Your task to perform on an android device: change the clock display to analog Image 0: 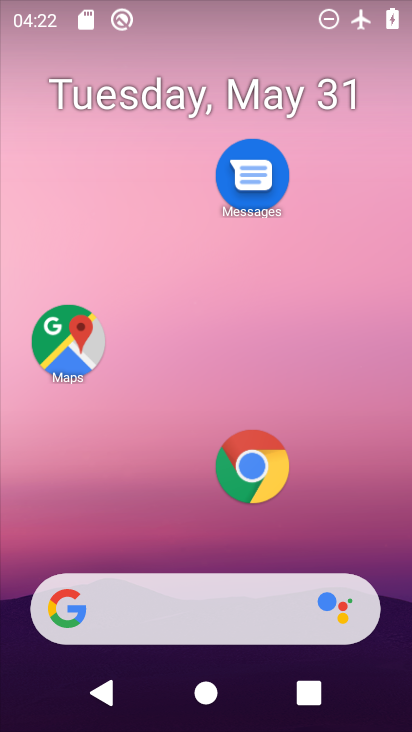
Step 0: drag from (74, 463) to (166, 120)
Your task to perform on an android device: change the clock display to analog Image 1: 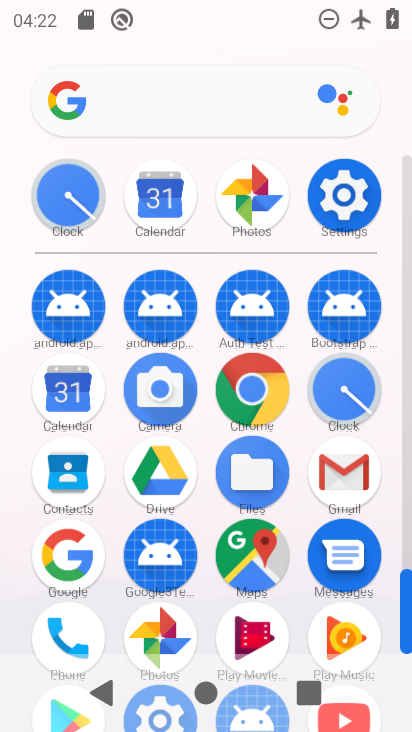
Step 1: click (358, 388)
Your task to perform on an android device: change the clock display to analog Image 2: 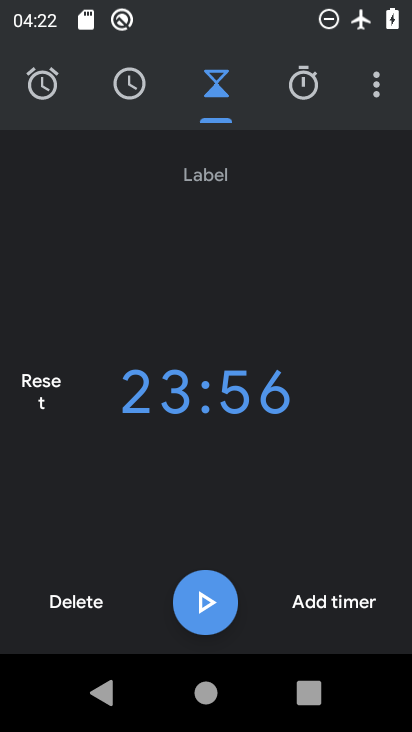
Step 2: click (375, 73)
Your task to perform on an android device: change the clock display to analog Image 3: 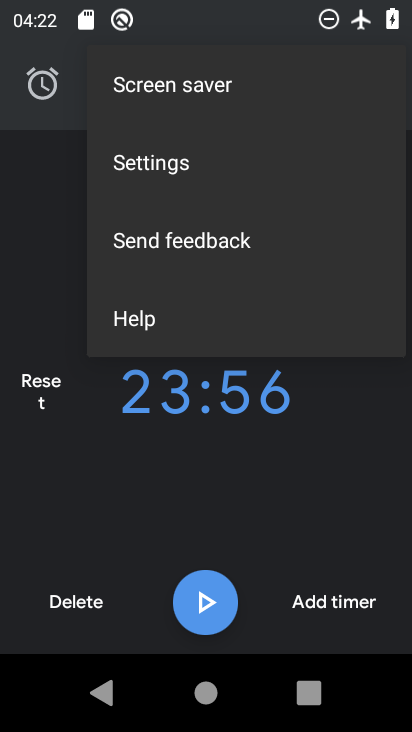
Step 3: click (138, 175)
Your task to perform on an android device: change the clock display to analog Image 4: 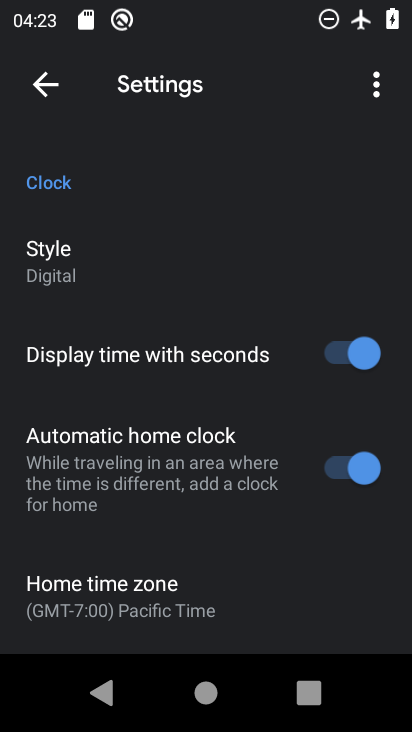
Step 4: click (63, 262)
Your task to perform on an android device: change the clock display to analog Image 5: 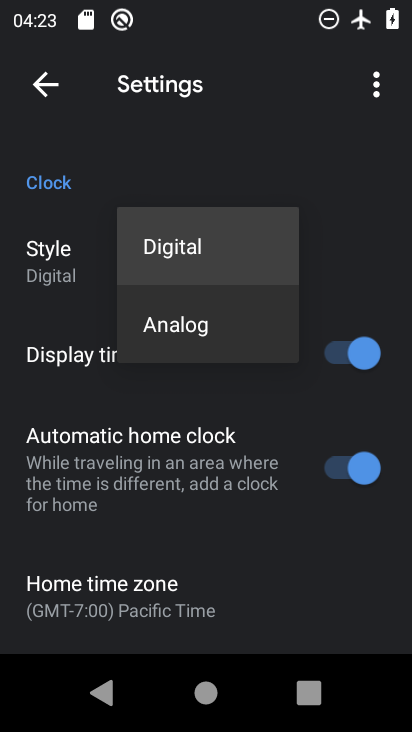
Step 5: click (158, 315)
Your task to perform on an android device: change the clock display to analog Image 6: 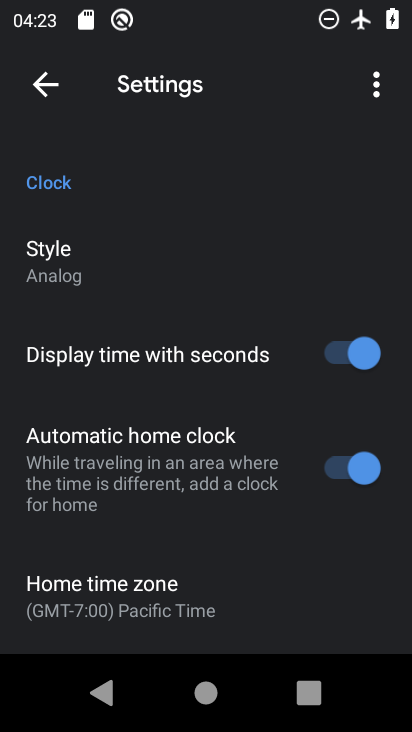
Step 6: task complete